Your task to perform on an android device: open chrome privacy settings Image 0: 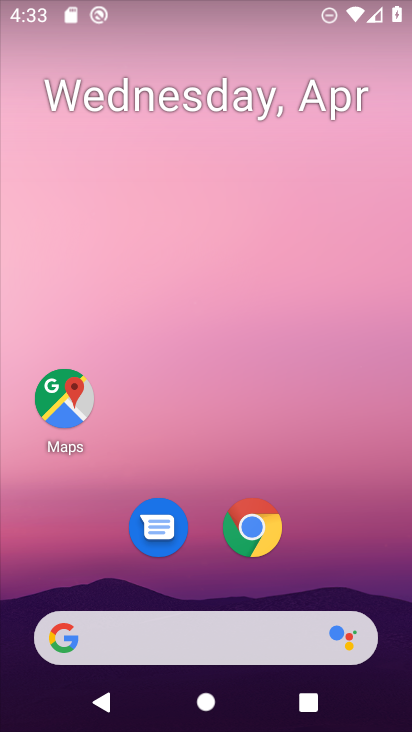
Step 0: click (282, 520)
Your task to perform on an android device: open chrome privacy settings Image 1: 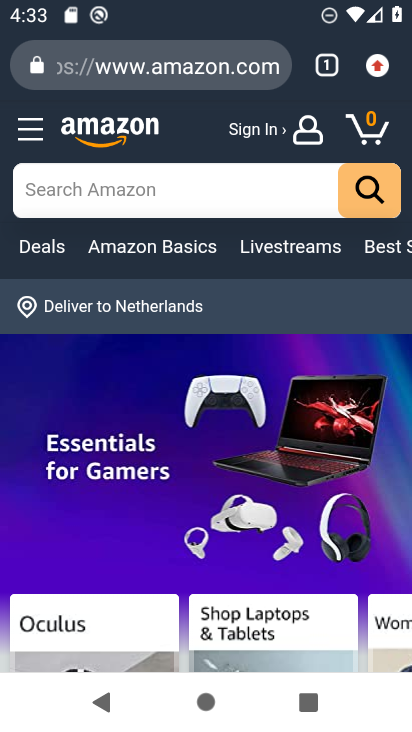
Step 1: click (377, 70)
Your task to perform on an android device: open chrome privacy settings Image 2: 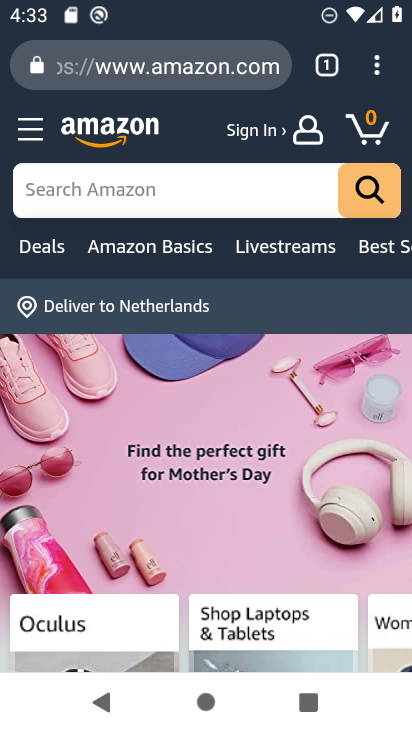
Step 2: click (377, 63)
Your task to perform on an android device: open chrome privacy settings Image 3: 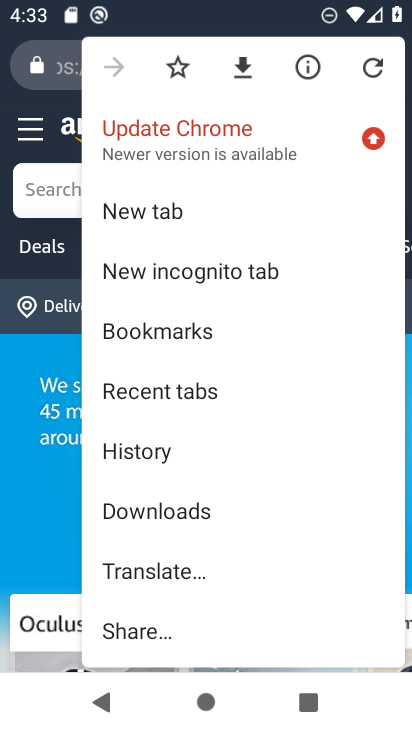
Step 3: drag from (211, 532) to (217, 205)
Your task to perform on an android device: open chrome privacy settings Image 4: 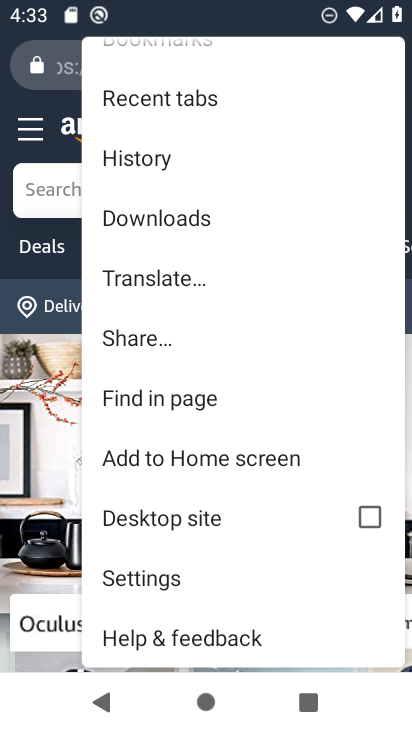
Step 4: click (166, 577)
Your task to perform on an android device: open chrome privacy settings Image 5: 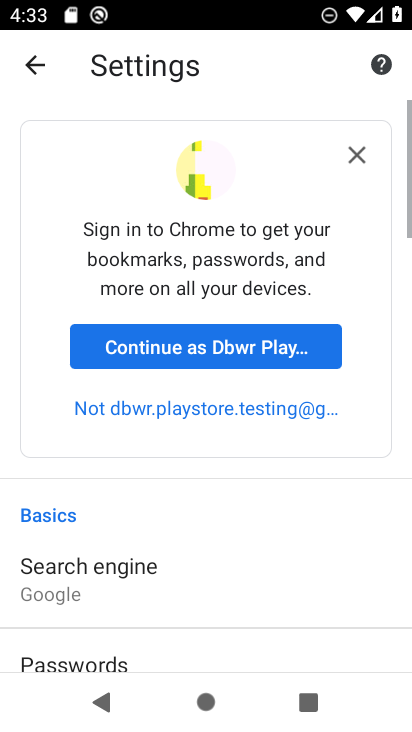
Step 5: drag from (166, 575) to (173, 75)
Your task to perform on an android device: open chrome privacy settings Image 6: 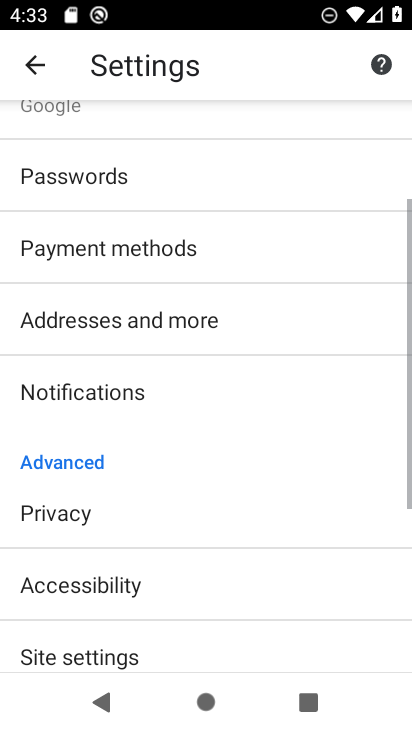
Step 6: drag from (220, 570) to (205, 78)
Your task to perform on an android device: open chrome privacy settings Image 7: 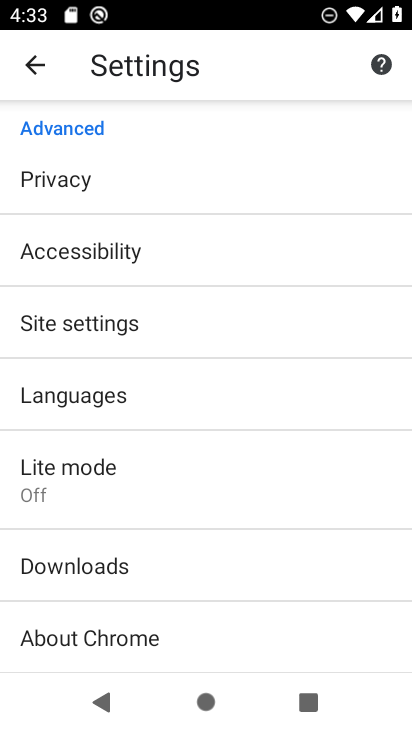
Step 7: click (59, 180)
Your task to perform on an android device: open chrome privacy settings Image 8: 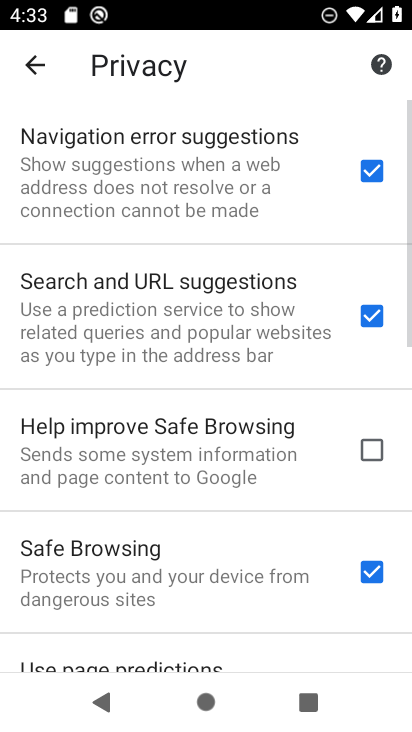
Step 8: task complete